Your task to perform on an android device: change notifications settings Image 0: 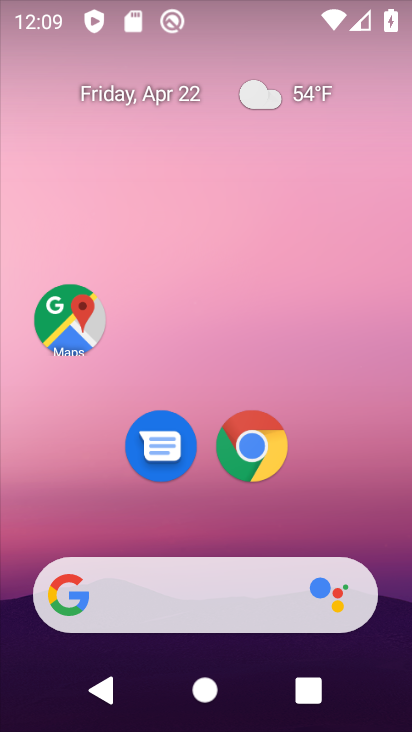
Step 0: drag from (372, 507) to (339, 231)
Your task to perform on an android device: change notifications settings Image 1: 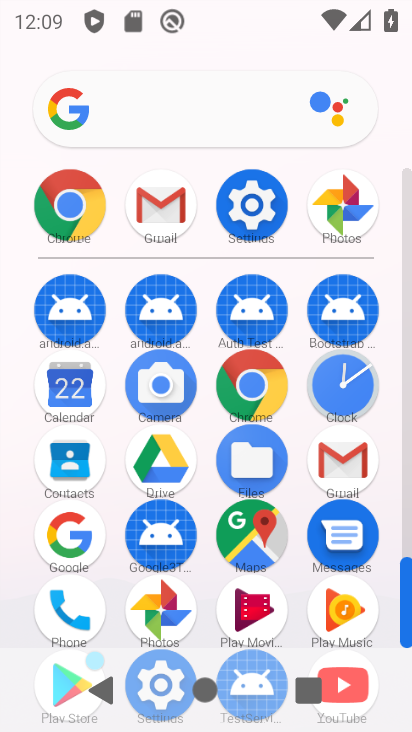
Step 1: click (267, 225)
Your task to perform on an android device: change notifications settings Image 2: 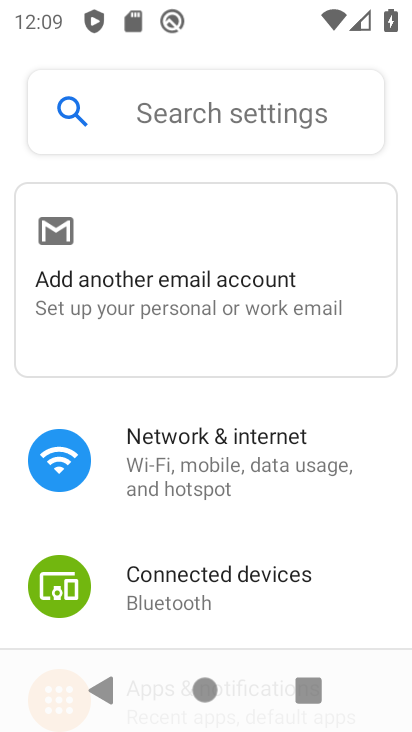
Step 2: drag from (315, 528) to (270, 168)
Your task to perform on an android device: change notifications settings Image 3: 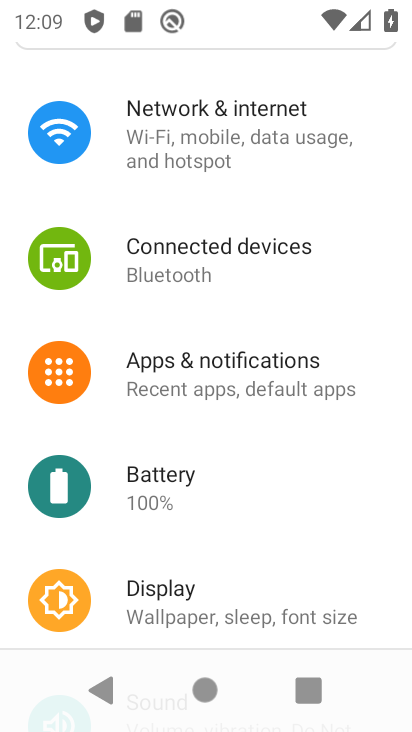
Step 3: click (350, 371)
Your task to perform on an android device: change notifications settings Image 4: 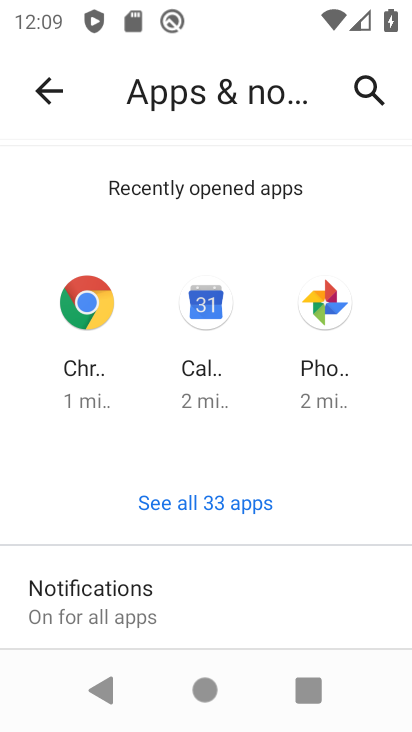
Step 4: click (315, 585)
Your task to perform on an android device: change notifications settings Image 5: 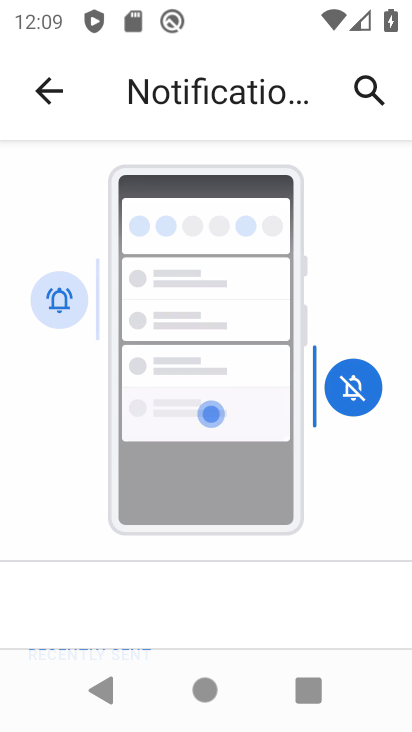
Step 5: drag from (315, 585) to (233, 138)
Your task to perform on an android device: change notifications settings Image 6: 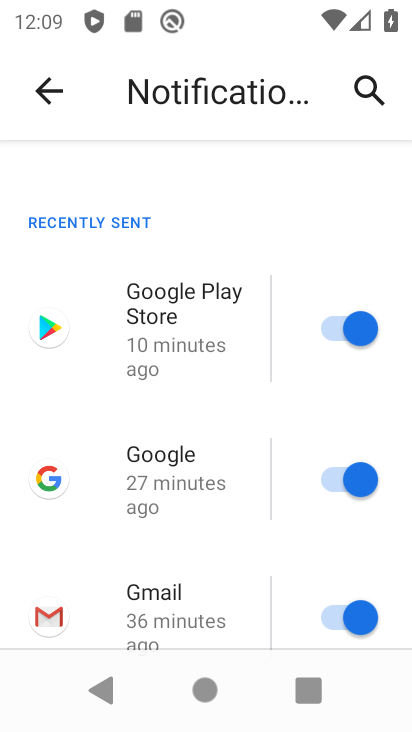
Step 6: drag from (246, 561) to (178, 128)
Your task to perform on an android device: change notifications settings Image 7: 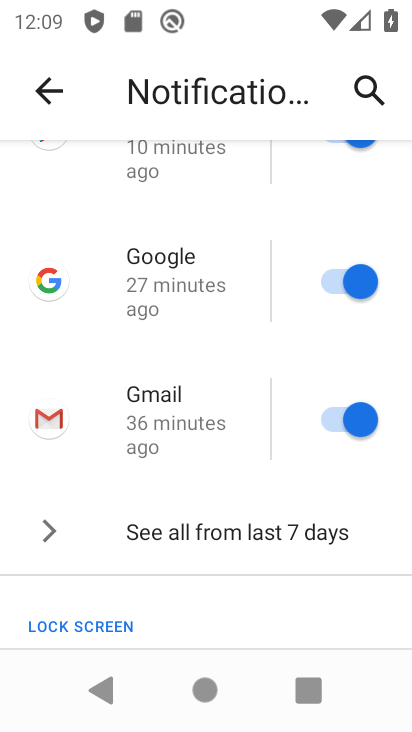
Step 7: drag from (213, 460) to (201, 81)
Your task to perform on an android device: change notifications settings Image 8: 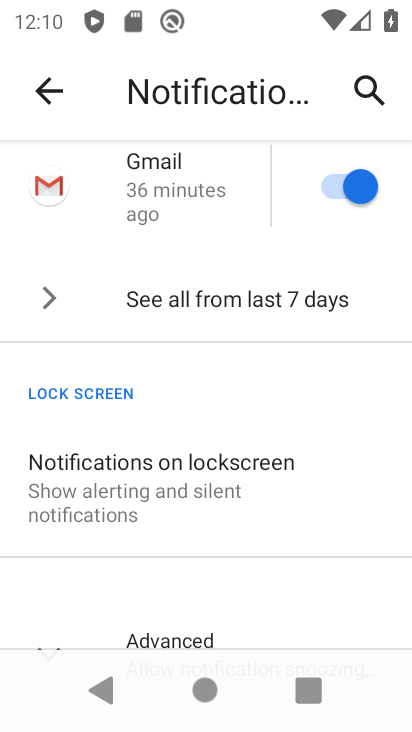
Step 8: click (266, 638)
Your task to perform on an android device: change notifications settings Image 9: 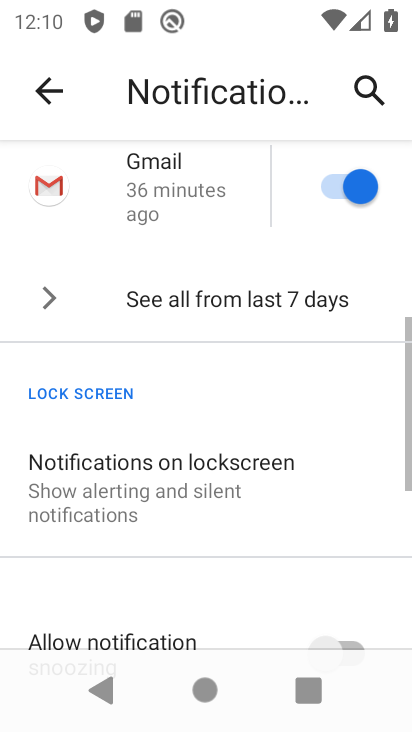
Step 9: press home button
Your task to perform on an android device: change notifications settings Image 10: 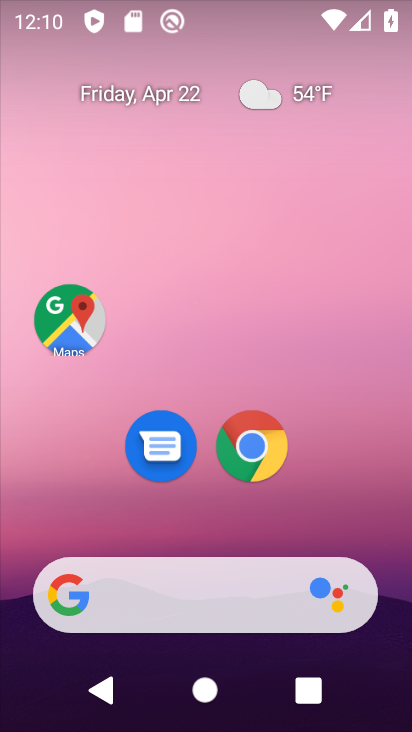
Step 10: drag from (334, 503) to (274, 104)
Your task to perform on an android device: change notifications settings Image 11: 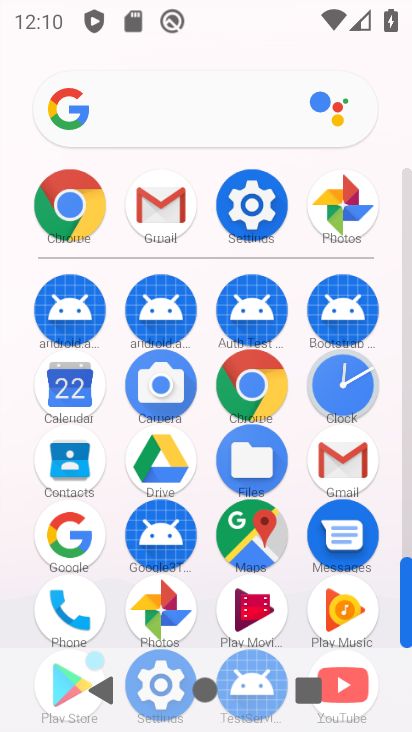
Step 11: drag from (403, 609) to (351, 268)
Your task to perform on an android device: change notifications settings Image 12: 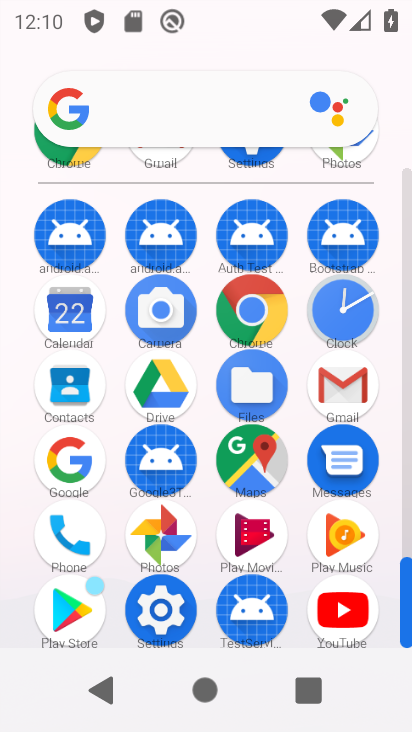
Step 12: click (169, 615)
Your task to perform on an android device: change notifications settings Image 13: 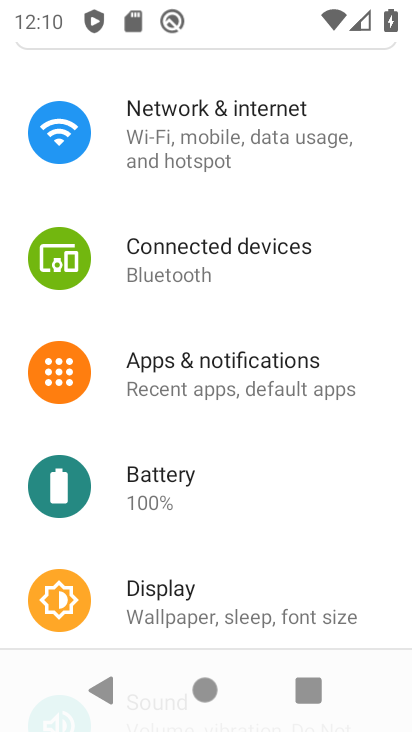
Step 13: click (294, 384)
Your task to perform on an android device: change notifications settings Image 14: 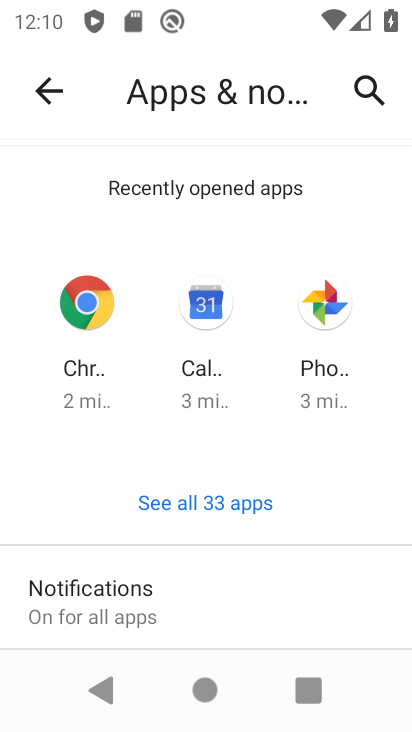
Step 14: drag from (349, 534) to (296, 231)
Your task to perform on an android device: change notifications settings Image 15: 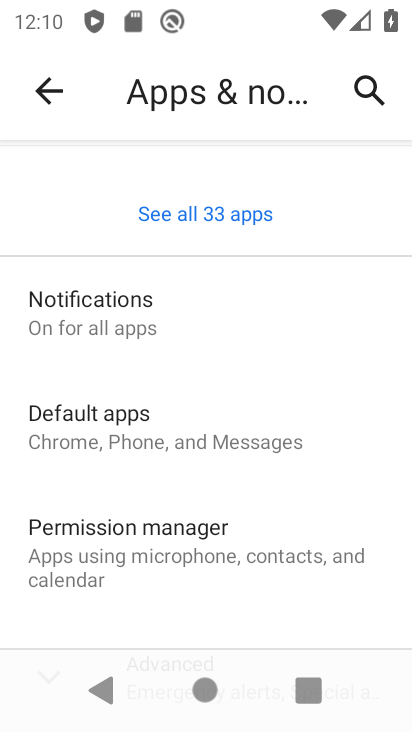
Step 15: click (313, 313)
Your task to perform on an android device: change notifications settings Image 16: 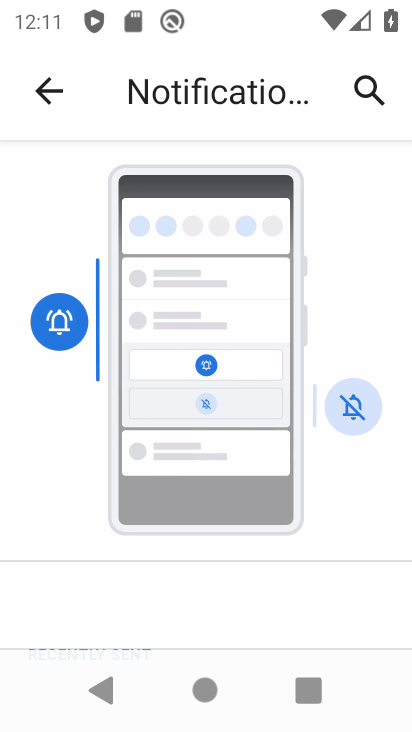
Step 16: drag from (321, 598) to (259, 321)
Your task to perform on an android device: change notifications settings Image 17: 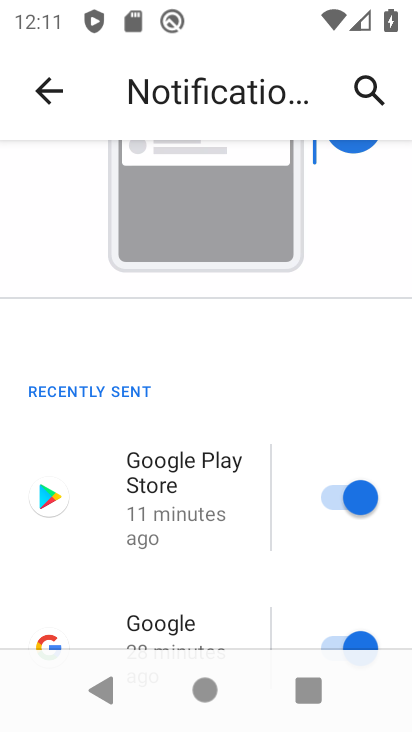
Step 17: drag from (284, 578) to (258, 247)
Your task to perform on an android device: change notifications settings Image 18: 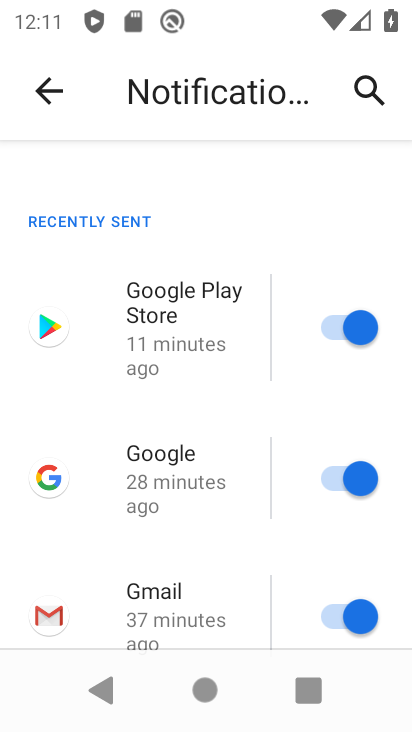
Step 18: drag from (299, 545) to (273, 233)
Your task to perform on an android device: change notifications settings Image 19: 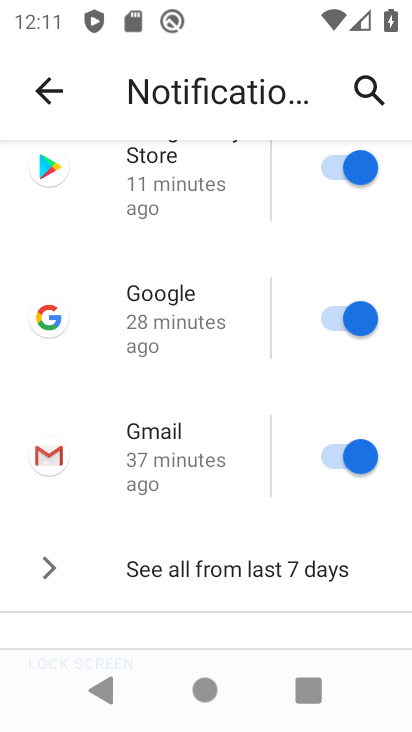
Step 19: drag from (291, 514) to (253, 130)
Your task to perform on an android device: change notifications settings Image 20: 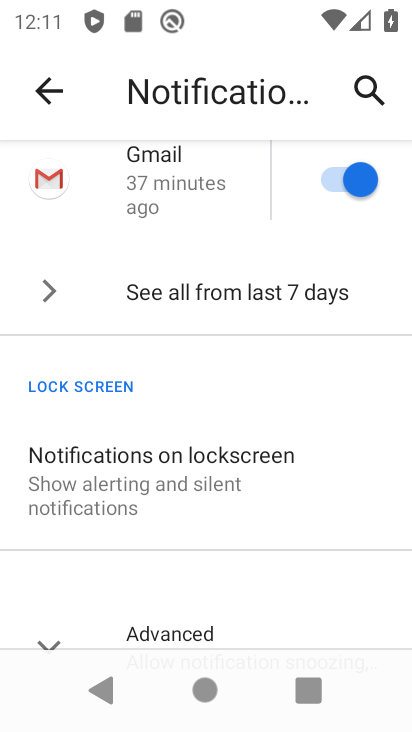
Step 20: drag from (294, 578) to (232, 302)
Your task to perform on an android device: change notifications settings Image 21: 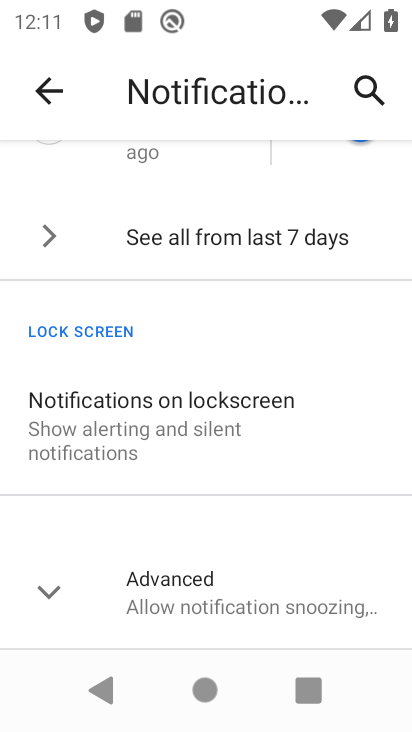
Step 21: click (277, 582)
Your task to perform on an android device: change notifications settings Image 22: 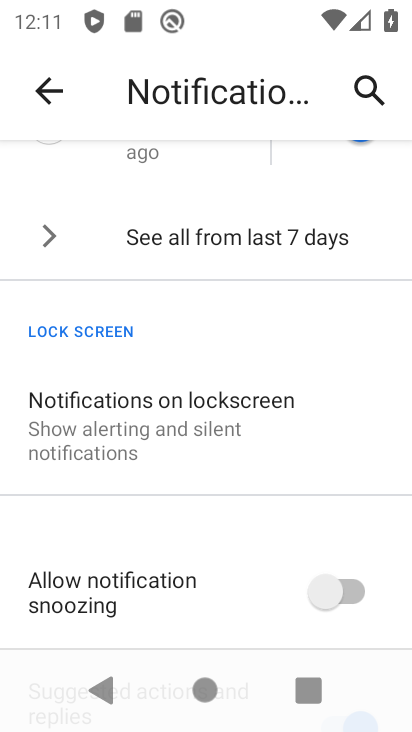
Step 22: drag from (258, 600) to (230, 321)
Your task to perform on an android device: change notifications settings Image 23: 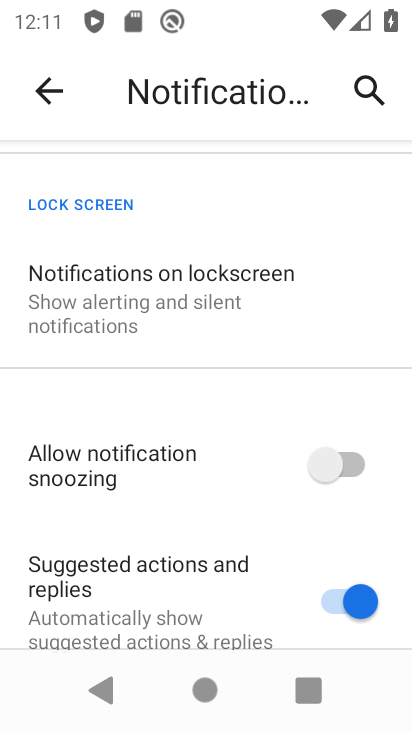
Step 23: drag from (276, 568) to (230, 329)
Your task to perform on an android device: change notifications settings Image 24: 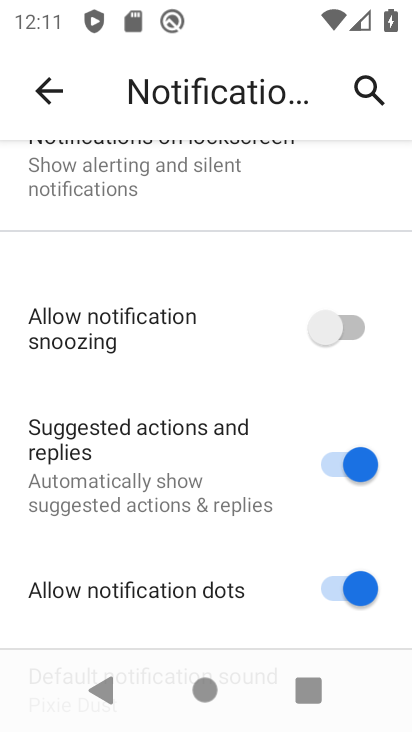
Step 24: click (355, 324)
Your task to perform on an android device: change notifications settings Image 25: 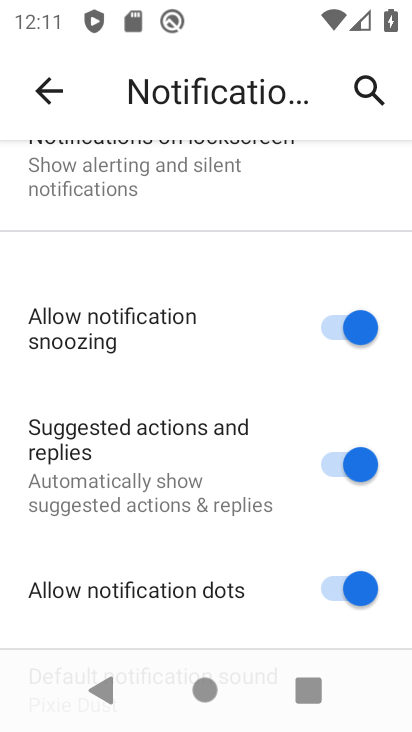
Step 25: click (339, 456)
Your task to perform on an android device: change notifications settings Image 26: 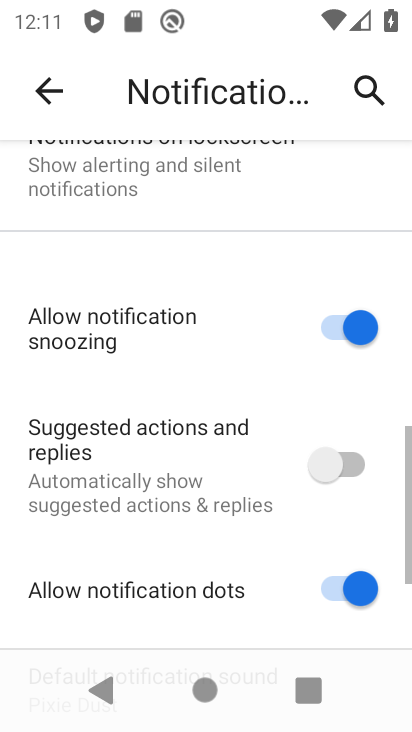
Step 26: click (346, 588)
Your task to perform on an android device: change notifications settings Image 27: 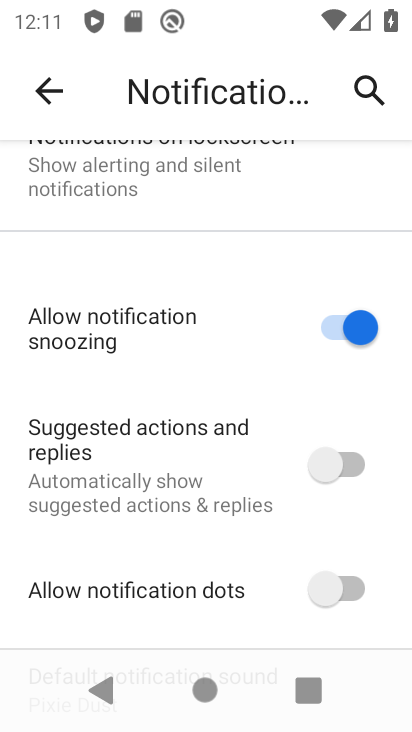
Step 27: task complete